Your task to perform on an android device: open chrome and create a bookmark for the current page Image 0: 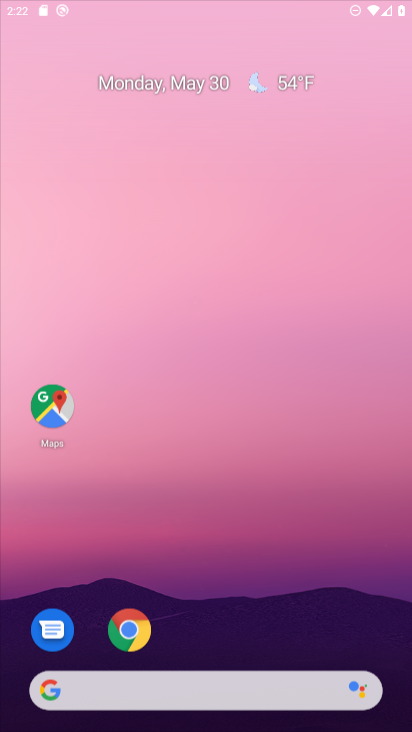
Step 0: click (259, 4)
Your task to perform on an android device: open chrome and create a bookmark for the current page Image 1: 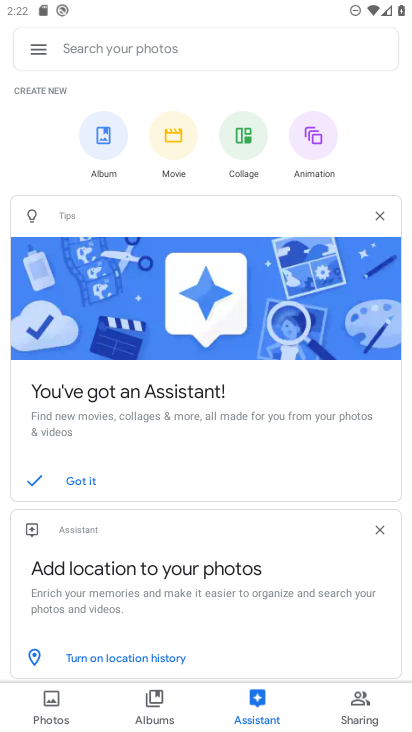
Step 1: press home button
Your task to perform on an android device: open chrome and create a bookmark for the current page Image 2: 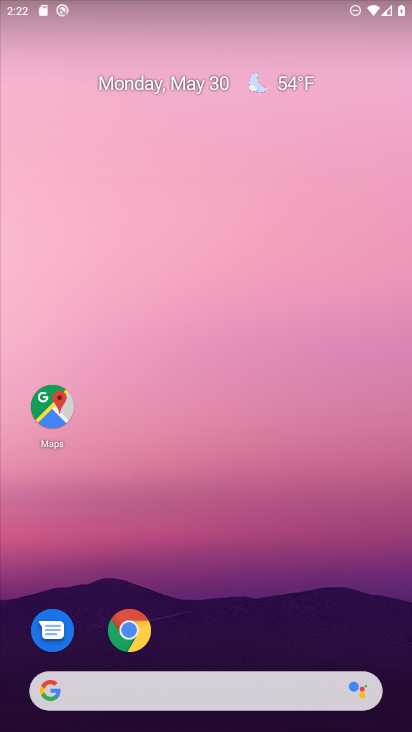
Step 2: click (129, 635)
Your task to perform on an android device: open chrome and create a bookmark for the current page Image 3: 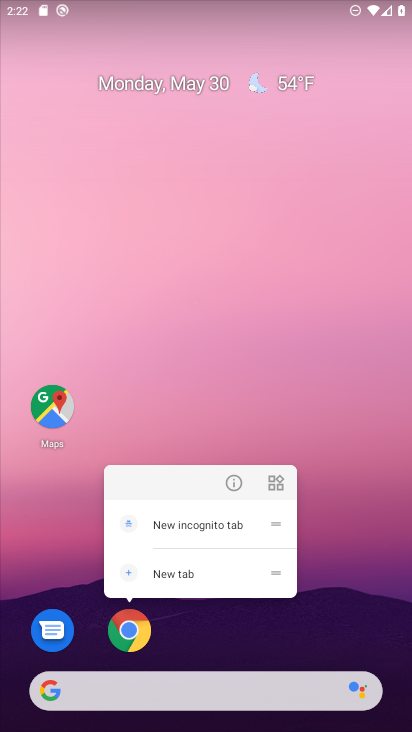
Step 3: click (119, 648)
Your task to perform on an android device: open chrome and create a bookmark for the current page Image 4: 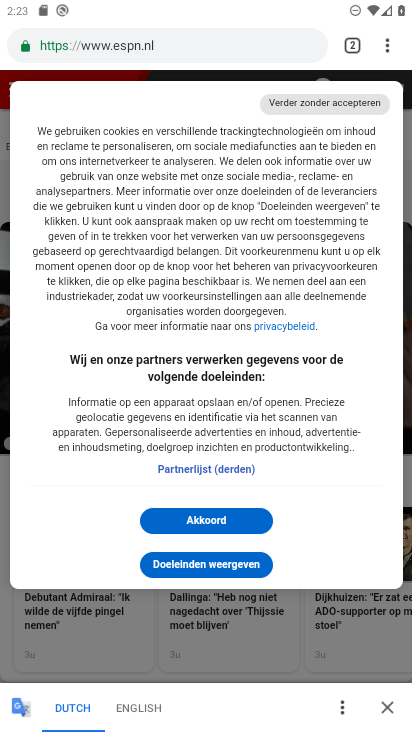
Step 4: task complete